Your task to perform on an android device: turn off translation in the chrome app Image 0: 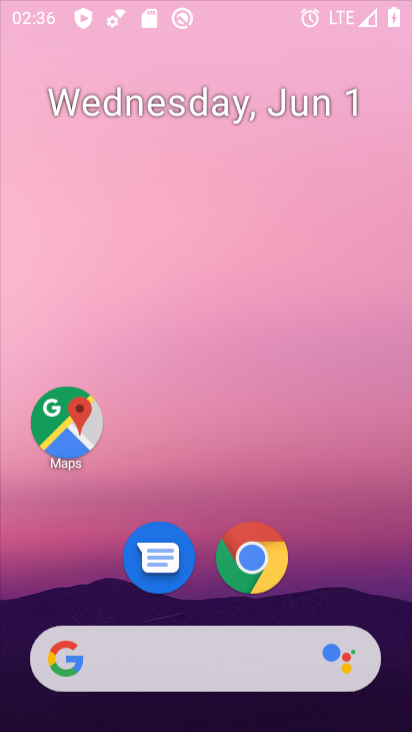
Step 0: press home button
Your task to perform on an android device: turn off translation in the chrome app Image 1: 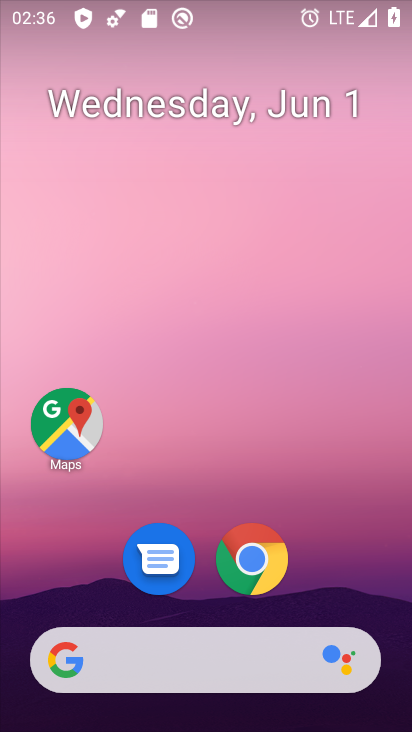
Step 1: click (250, 550)
Your task to perform on an android device: turn off translation in the chrome app Image 2: 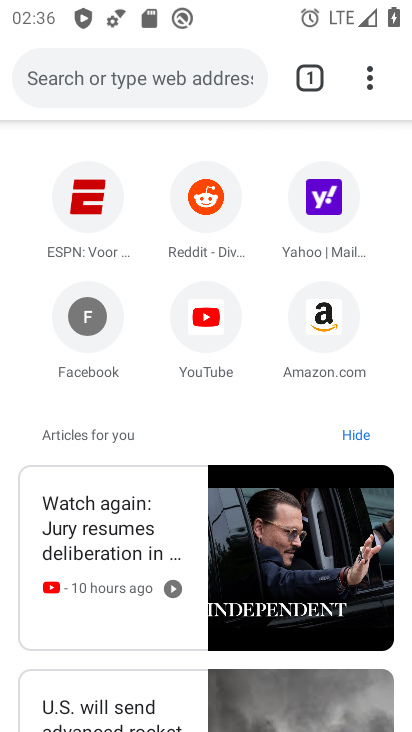
Step 2: drag from (365, 89) to (85, 641)
Your task to perform on an android device: turn off translation in the chrome app Image 3: 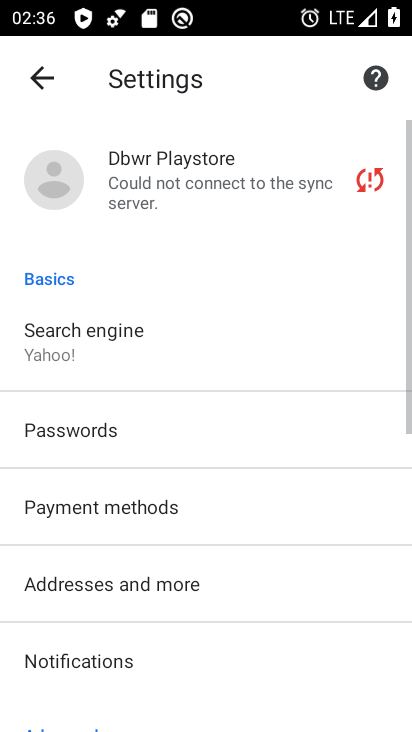
Step 3: drag from (230, 672) to (241, 155)
Your task to perform on an android device: turn off translation in the chrome app Image 4: 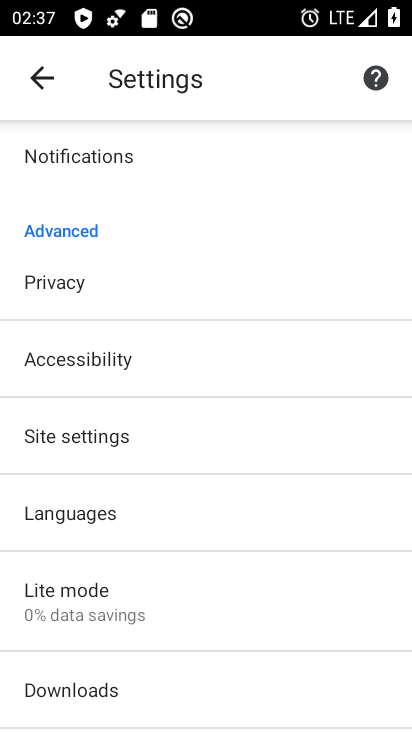
Step 4: click (67, 516)
Your task to perform on an android device: turn off translation in the chrome app Image 5: 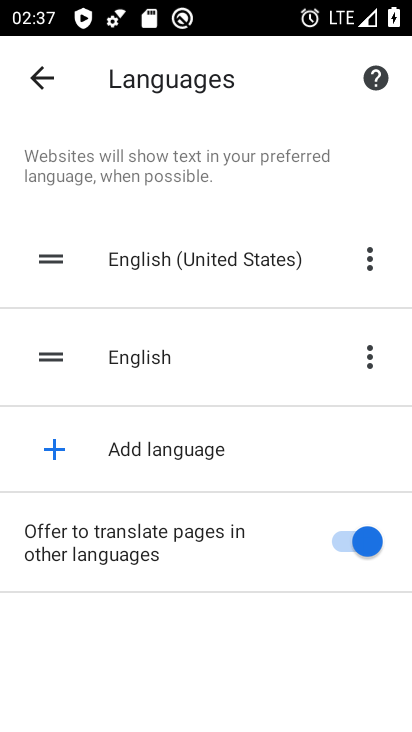
Step 5: click (362, 537)
Your task to perform on an android device: turn off translation in the chrome app Image 6: 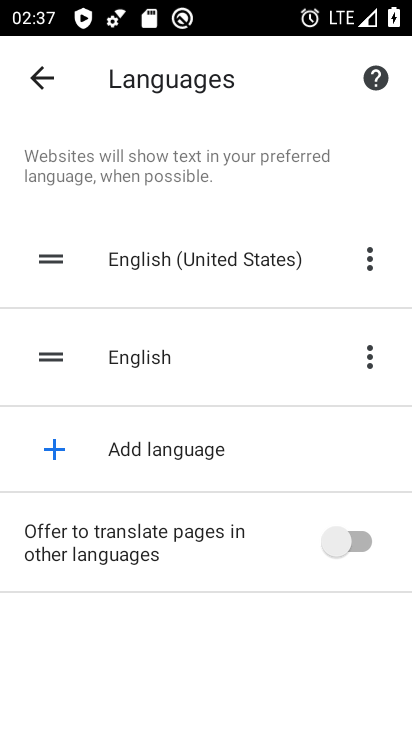
Step 6: task complete